Your task to perform on an android device: find photos in the google photos app Image 0: 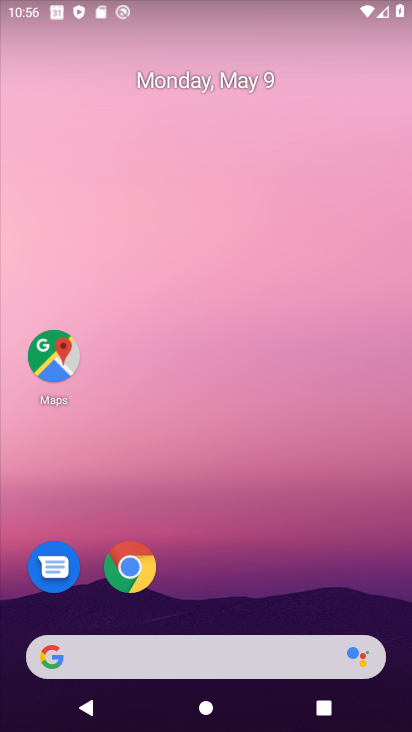
Step 0: drag from (389, 613) to (286, 124)
Your task to perform on an android device: find photos in the google photos app Image 1: 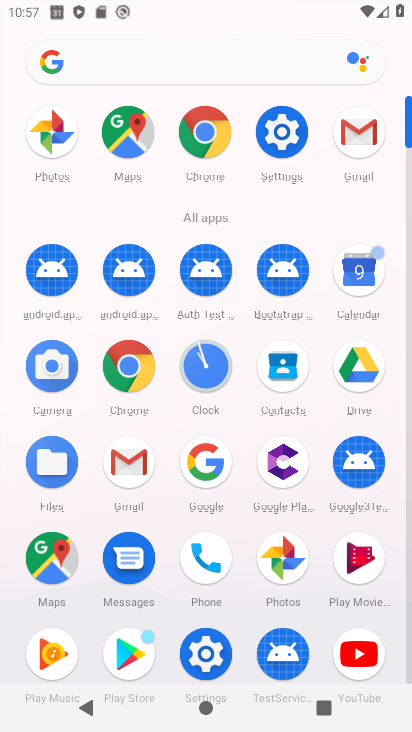
Step 1: click (268, 571)
Your task to perform on an android device: find photos in the google photos app Image 2: 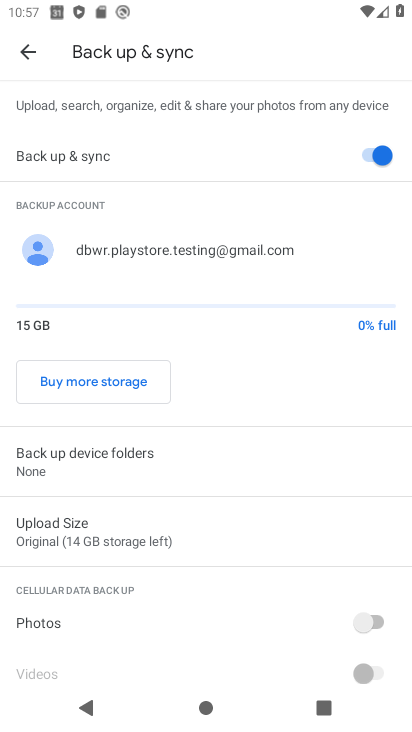
Step 2: task complete